Your task to perform on an android device: turn on notifications settings in the gmail app Image 0: 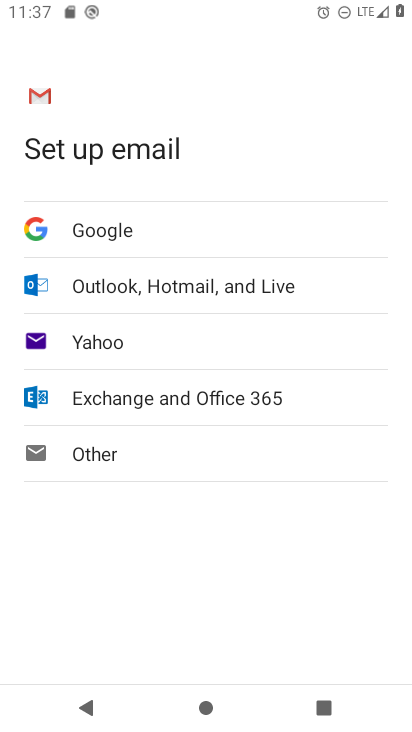
Step 0: press home button
Your task to perform on an android device: turn on notifications settings in the gmail app Image 1: 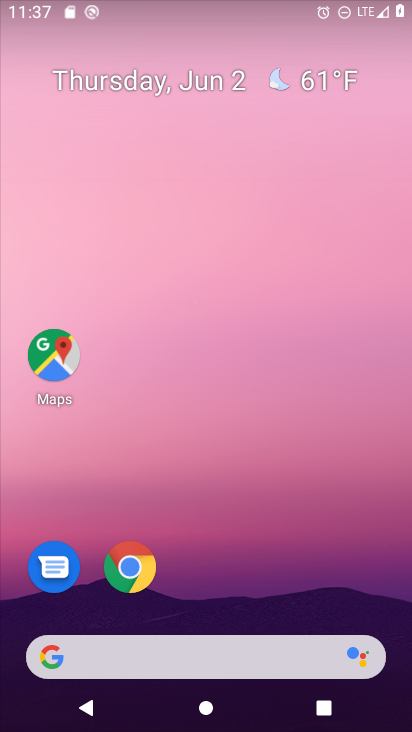
Step 1: drag from (263, 464) to (194, 77)
Your task to perform on an android device: turn on notifications settings in the gmail app Image 2: 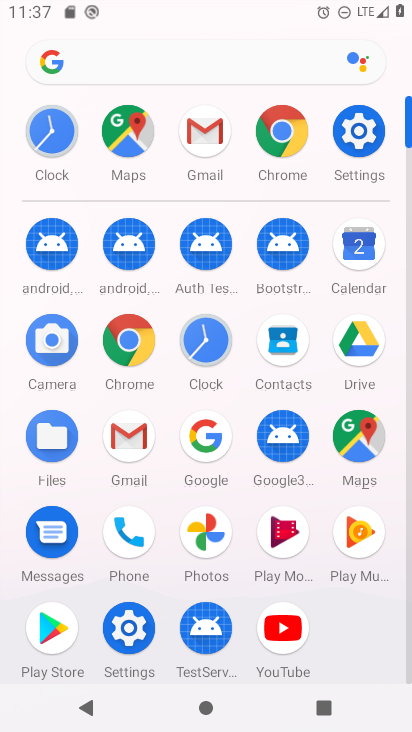
Step 2: click (212, 124)
Your task to perform on an android device: turn on notifications settings in the gmail app Image 3: 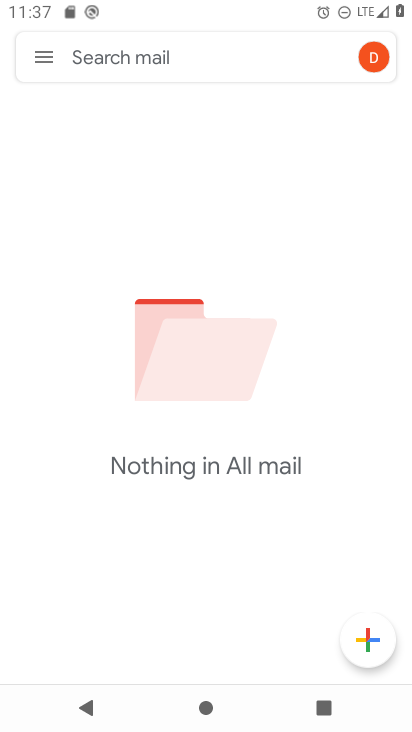
Step 3: click (47, 59)
Your task to perform on an android device: turn on notifications settings in the gmail app Image 4: 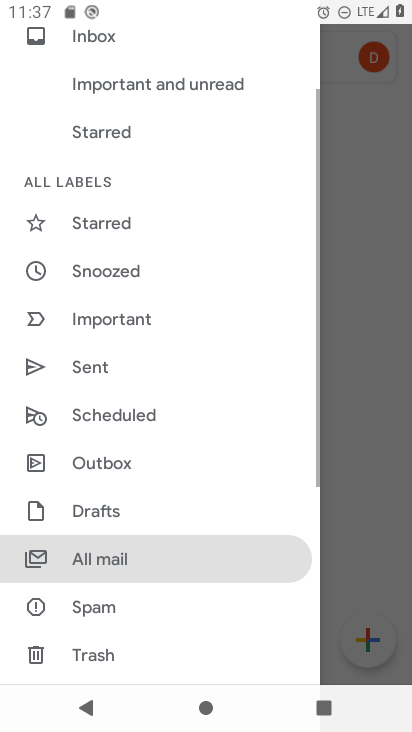
Step 4: drag from (170, 679) to (123, 133)
Your task to perform on an android device: turn on notifications settings in the gmail app Image 5: 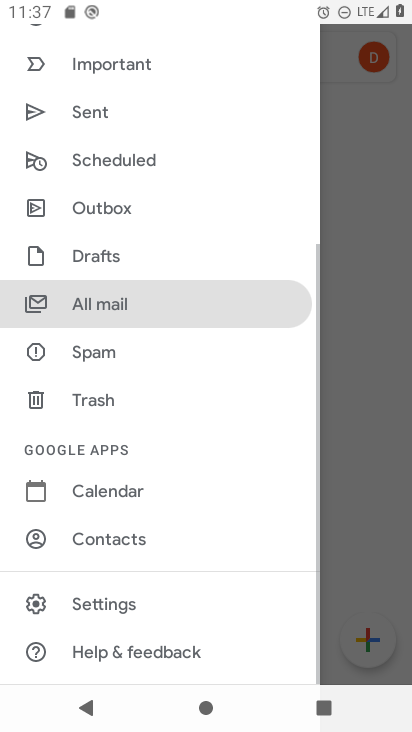
Step 5: click (131, 607)
Your task to perform on an android device: turn on notifications settings in the gmail app Image 6: 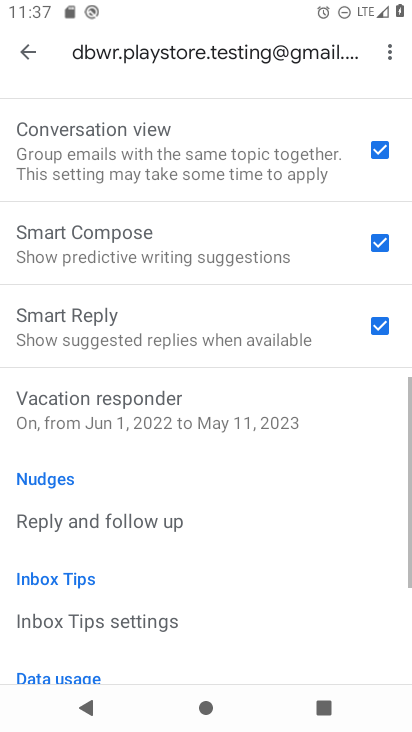
Step 6: drag from (210, 135) to (276, 587)
Your task to perform on an android device: turn on notifications settings in the gmail app Image 7: 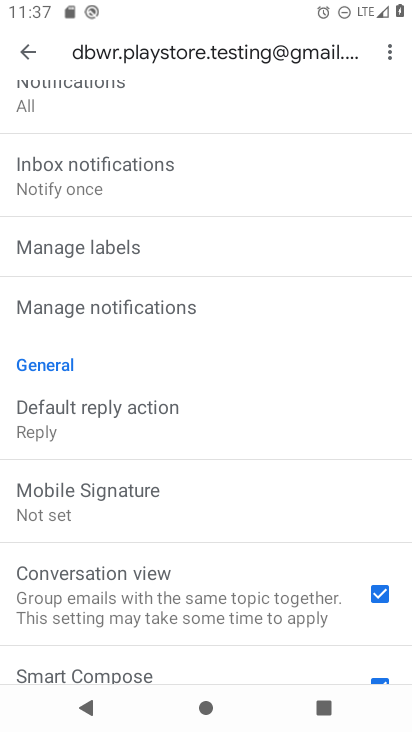
Step 7: drag from (203, 174) to (169, 485)
Your task to perform on an android device: turn on notifications settings in the gmail app Image 8: 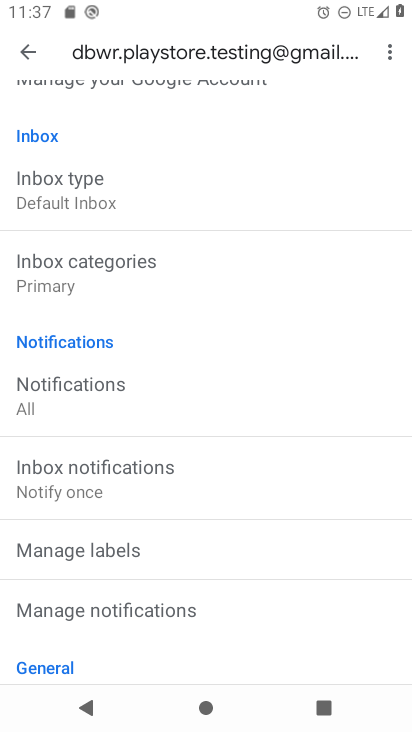
Step 8: drag from (204, 240) to (216, 567)
Your task to perform on an android device: turn on notifications settings in the gmail app Image 9: 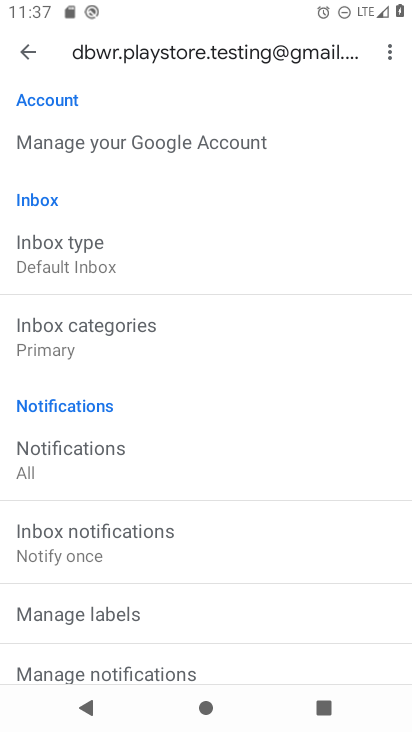
Step 9: drag from (220, 439) to (220, 233)
Your task to perform on an android device: turn on notifications settings in the gmail app Image 10: 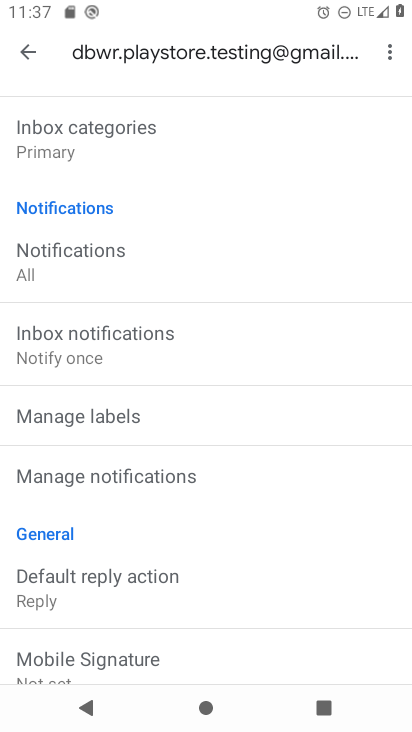
Step 10: click (158, 475)
Your task to perform on an android device: turn on notifications settings in the gmail app Image 11: 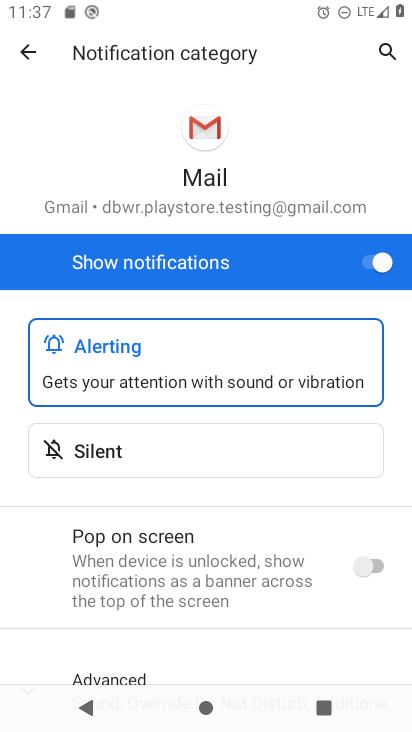
Step 11: task complete